Your task to perform on an android device: Search for pizza restaurants on Maps Image 0: 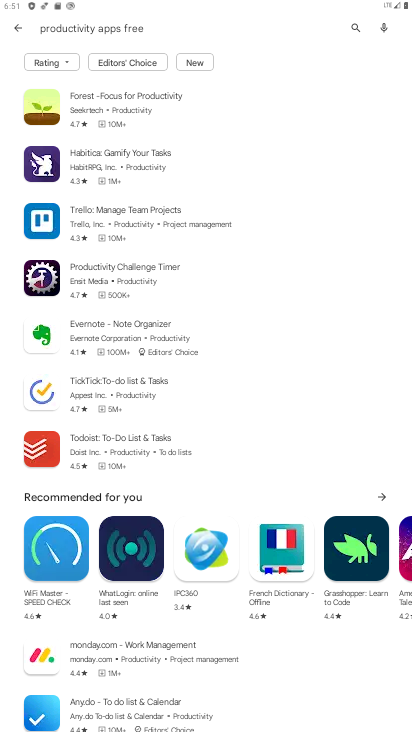
Step 0: press home button
Your task to perform on an android device: Search for pizza restaurants on Maps Image 1: 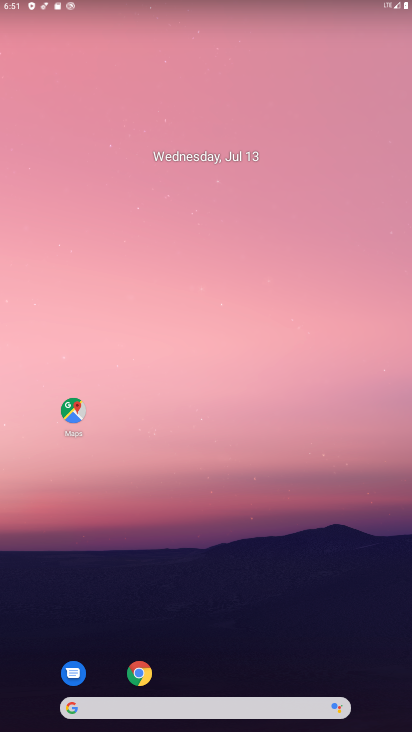
Step 1: drag from (246, 628) to (375, 41)
Your task to perform on an android device: Search for pizza restaurants on Maps Image 2: 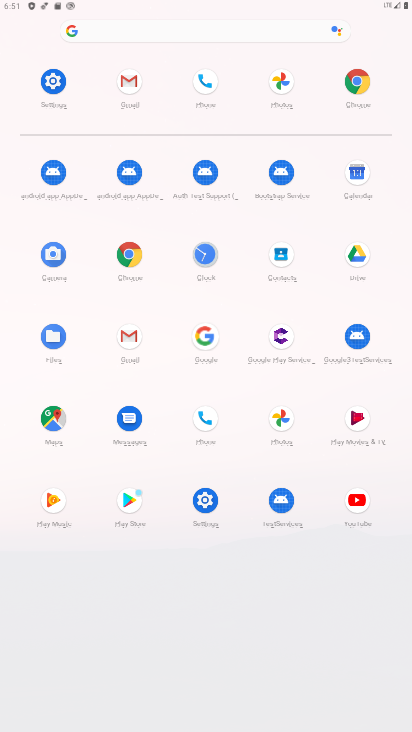
Step 2: click (58, 424)
Your task to perform on an android device: Search for pizza restaurants on Maps Image 3: 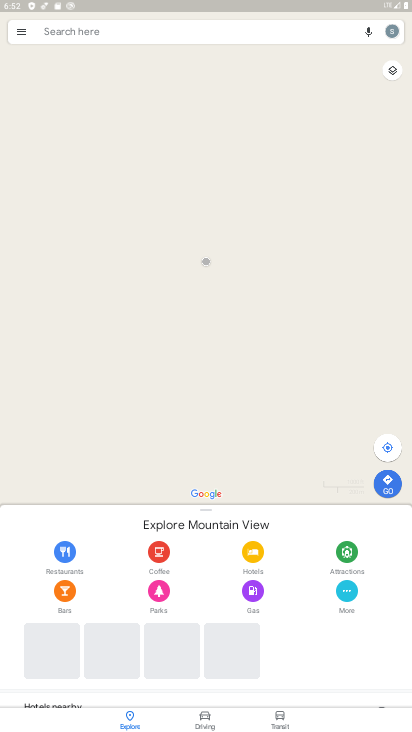
Step 3: click (176, 29)
Your task to perform on an android device: Search for pizza restaurants on Maps Image 4: 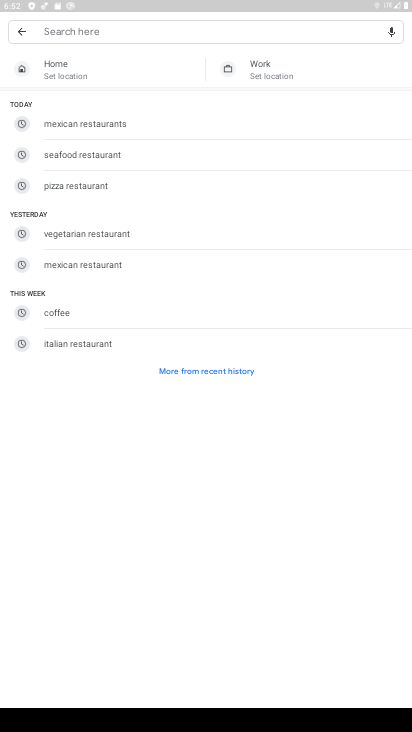
Step 4: type "pizza restaurants"
Your task to perform on an android device: Search for pizza restaurants on Maps Image 5: 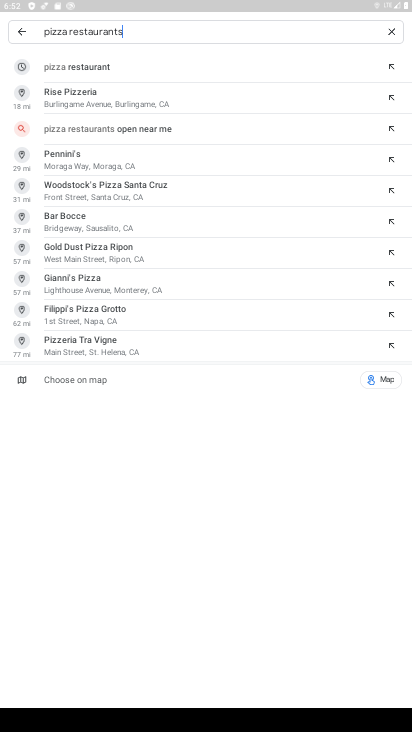
Step 5: click (157, 69)
Your task to perform on an android device: Search for pizza restaurants on Maps Image 6: 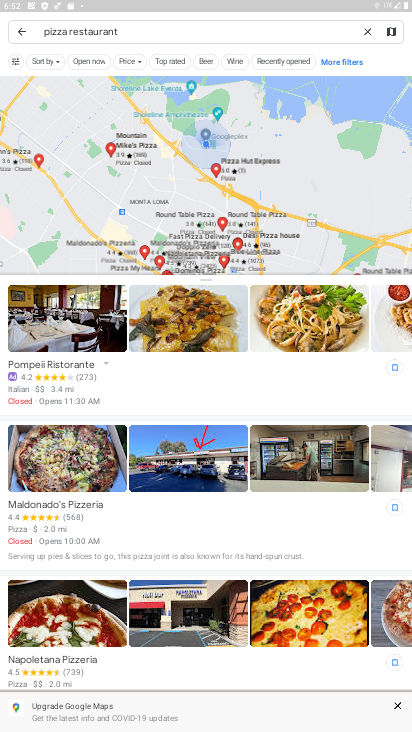
Step 6: task complete